Your task to perform on an android device: turn on sleep mode Image 0: 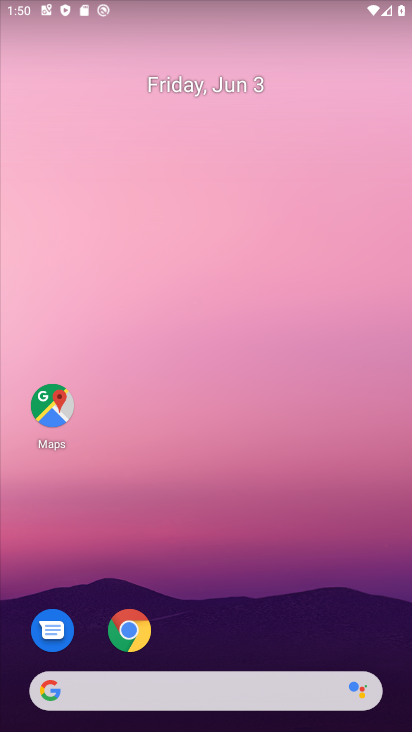
Step 0: drag from (221, 726) to (190, 16)
Your task to perform on an android device: turn on sleep mode Image 1: 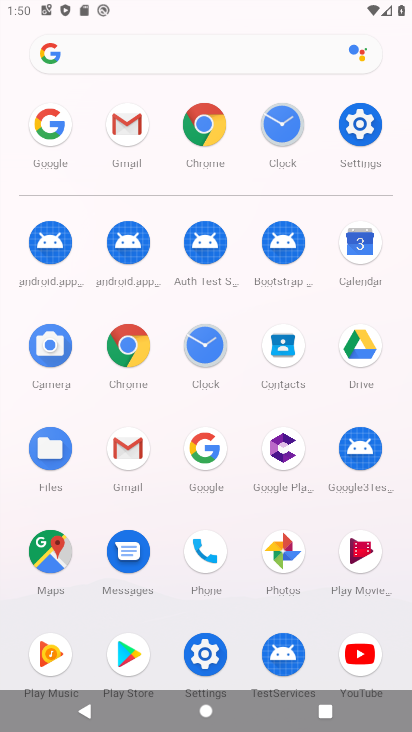
Step 1: click (358, 121)
Your task to perform on an android device: turn on sleep mode Image 2: 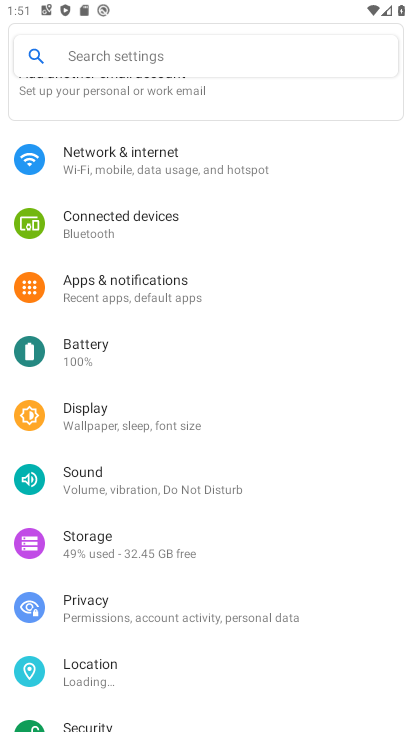
Step 2: task complete